Your task to perform on an android device: check the backup settings in the google photos Image 0: 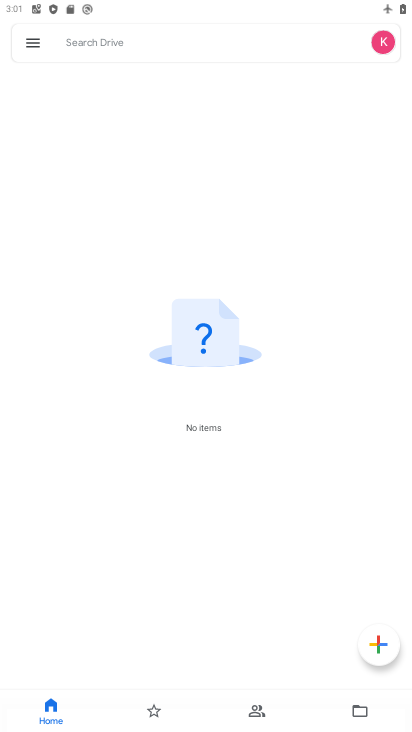
Step 0: press home button
Your task to perform on an android device: check the backup settings in the google photos Image 1: 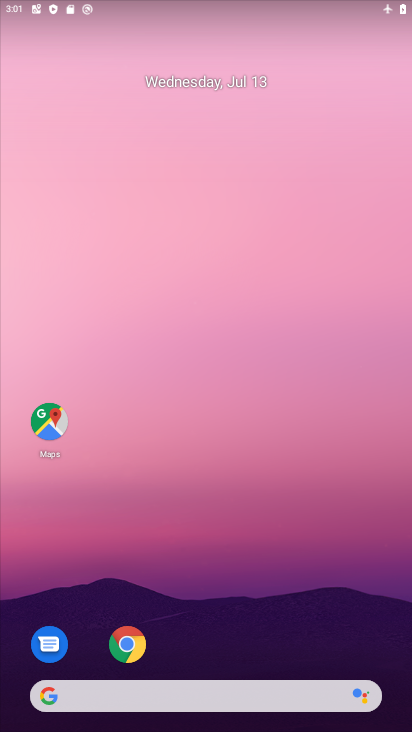
Step 1: drag from (280, 630) to (237, 227)
Your task to perform on an android device: check the backup settings in the google photos Image 2: 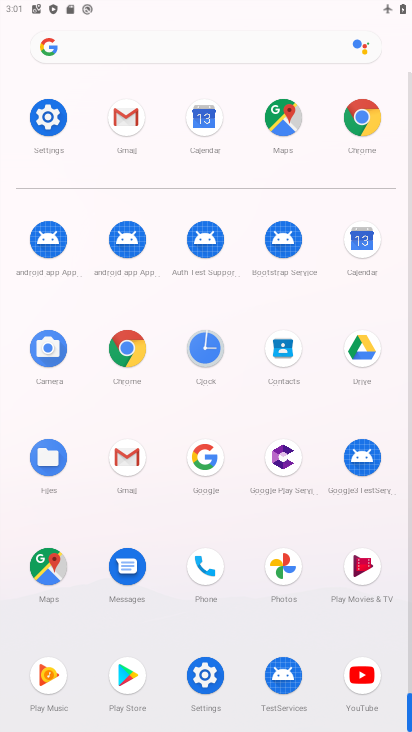
Step 2: click (288, 568)
Your task to perform on an android device: check the backup settings in the google photos Image 3: 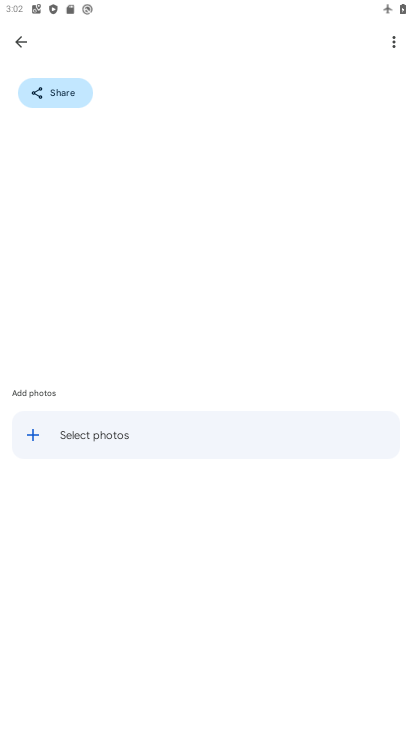
Step 3: click (20, 37)
Your task to perform on an android device: check the backup settings in the google photos Image 4: 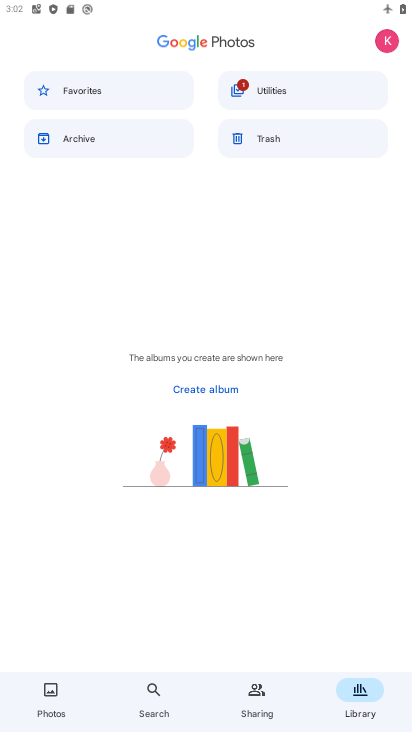
Step 4: click (383, 43)
Your task to perform on an android device: check the backup settings in the google photos Image 5: 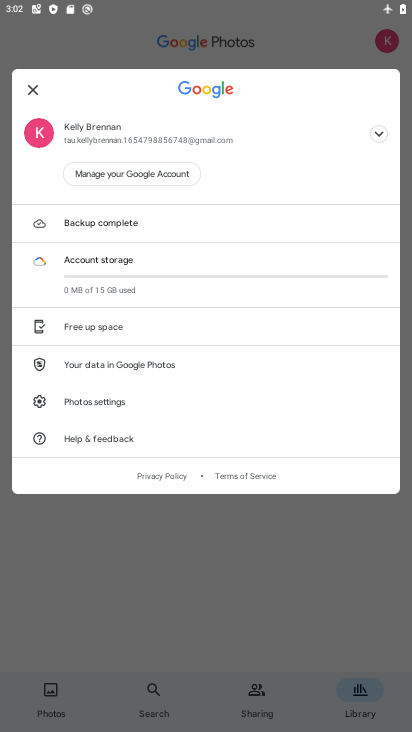
Step 5: click (100, 401)
Your task to perform on an android device: check the backup settings in the google photos Image 6: 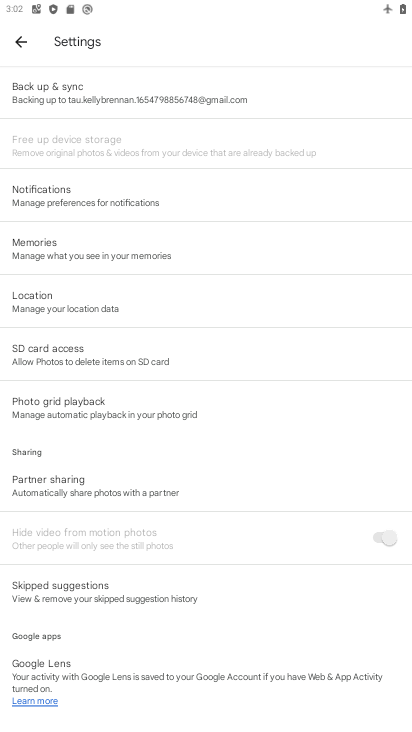
Step 6: click (210, 89)
Your task to perform on an android device: check the backup settings in the google photos Image 7: 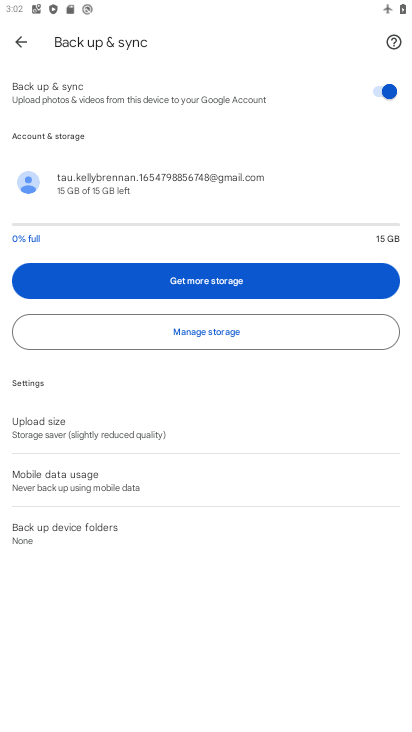
Step 7: task complete